Your task to perform on an android device: toggle airplane mode Image 0: 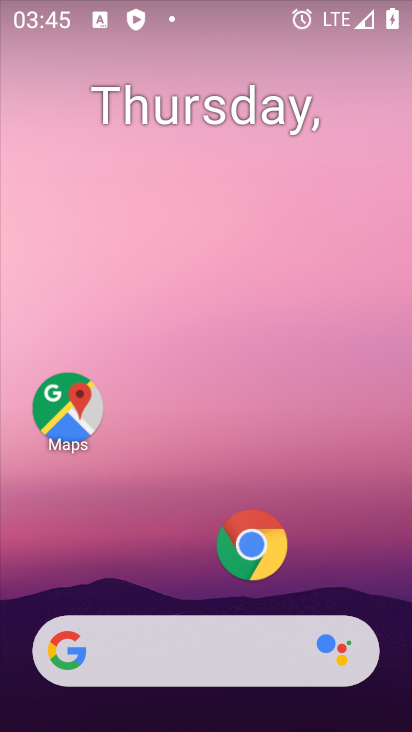
Step 0: drag from (262, 648) to (212, 6)
Your task to perform on an android device: toggle airplane mode Image 1: 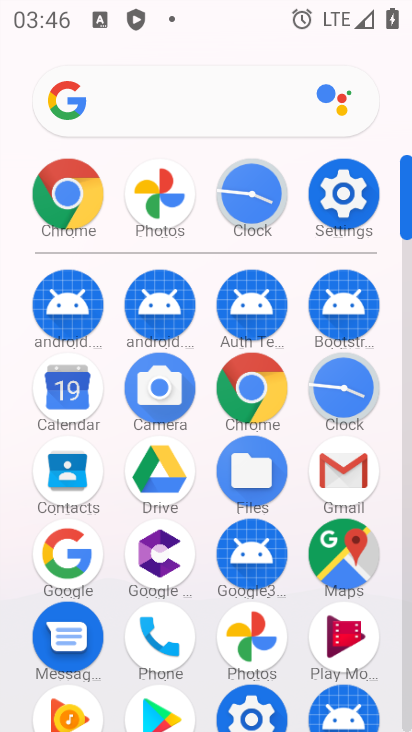
Step 1: click (370, 190)
Your task to perform on an android device: toggle airplane mode Image 2: 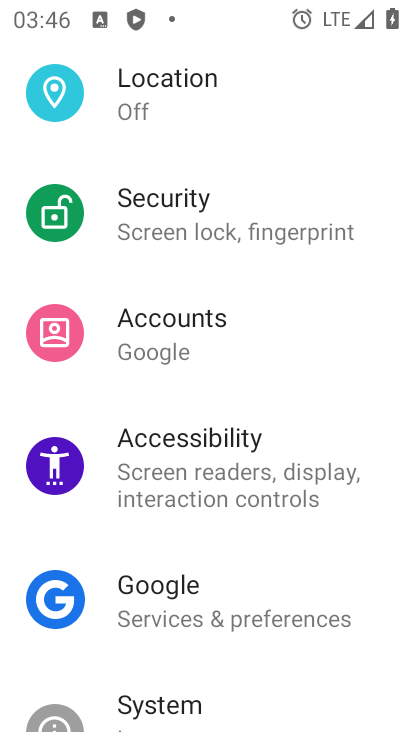
Step 2: drag from (318, 167) to (273, 622)
Your task to perform on an android device: toggle airplane mode Image 3: 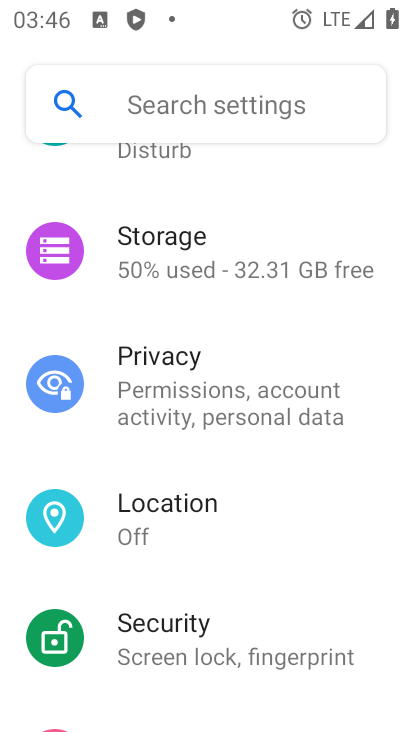
Step 3: drag from (222, 202) to (244, 643)
Your task to perform on an android device: toggle airplane mode Image 4: 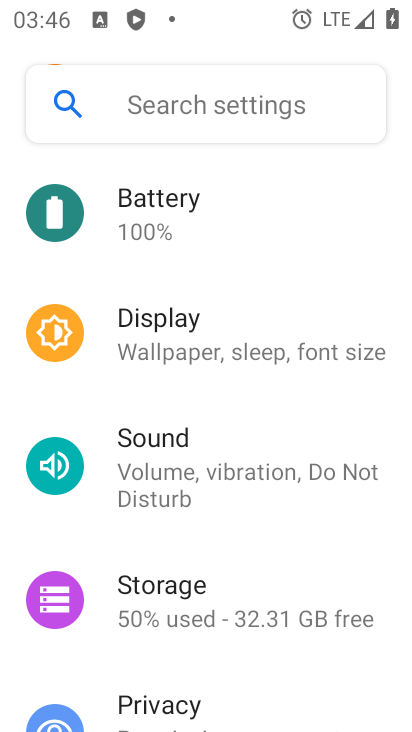
Step 4: drag from (211, 272) to (263, 601)
Your task to perform on an android device: toggle airplane mode Image 5: 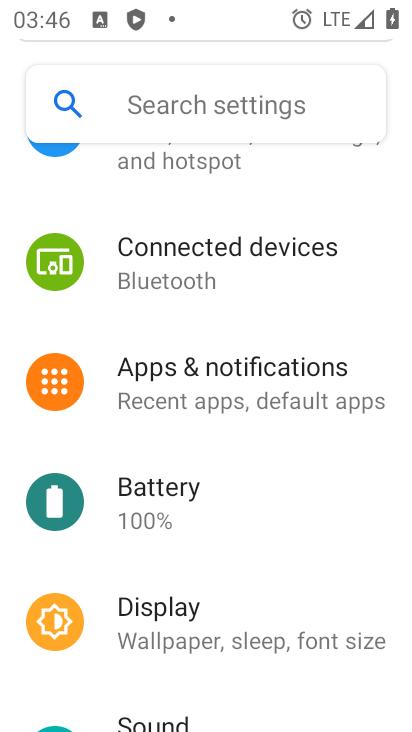
Step 5: drag from (336, 368) to (309, 622)
Your task to perform on an android device: toggle airplane mode Image 6: 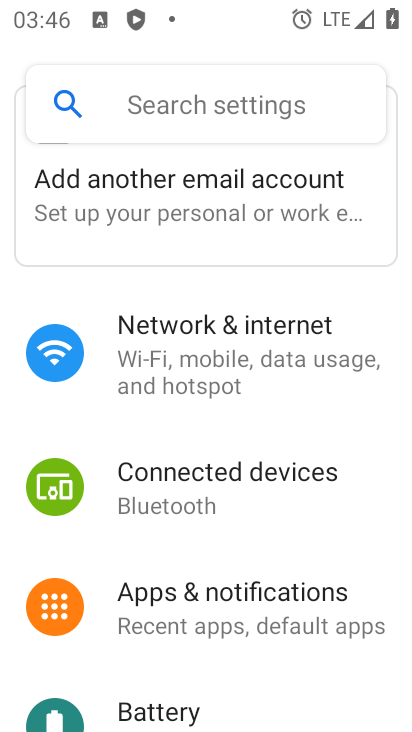
Step 6: click (300, 368)
Your task to perform on an android device: toggle airplane mode Image 7: 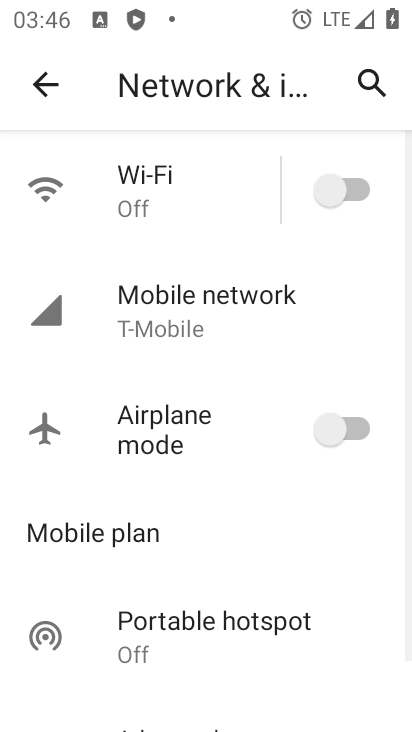
Step 7: drag from (233, 657) to (231, 372)
Your task to perform on an android device: toggle airplane mode Image 8: 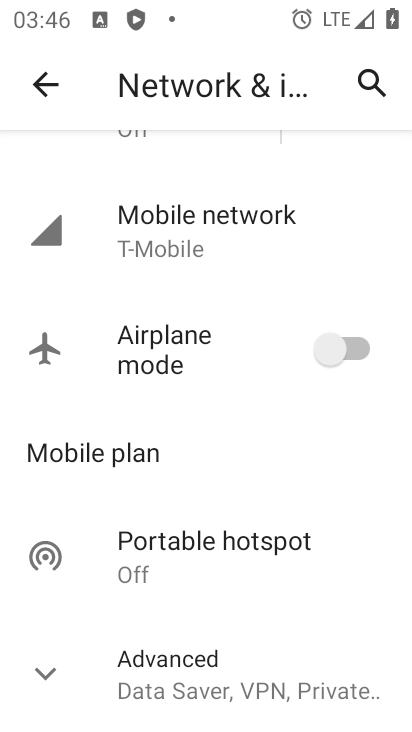
Step 8: click (352, 350)
Your task to perform on an android device: toggle airplane mode Image 9: 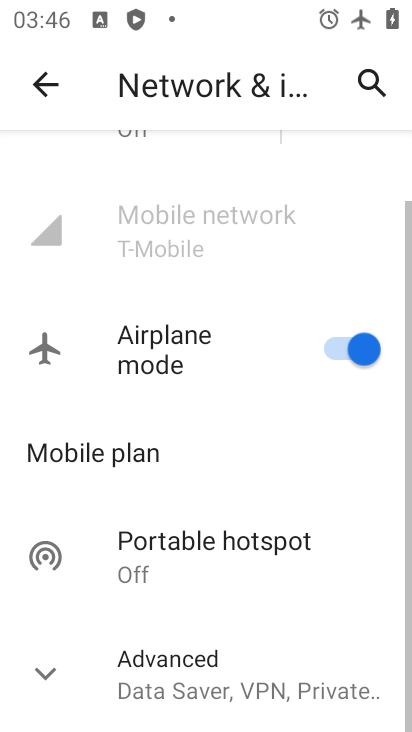
Step 9: task complete